Your task to perform on an android device: open app "Move to iOS" (install if not already installed) and enter user name: "Decca@icloud.com" and password: "reabbreviate" Image 0: 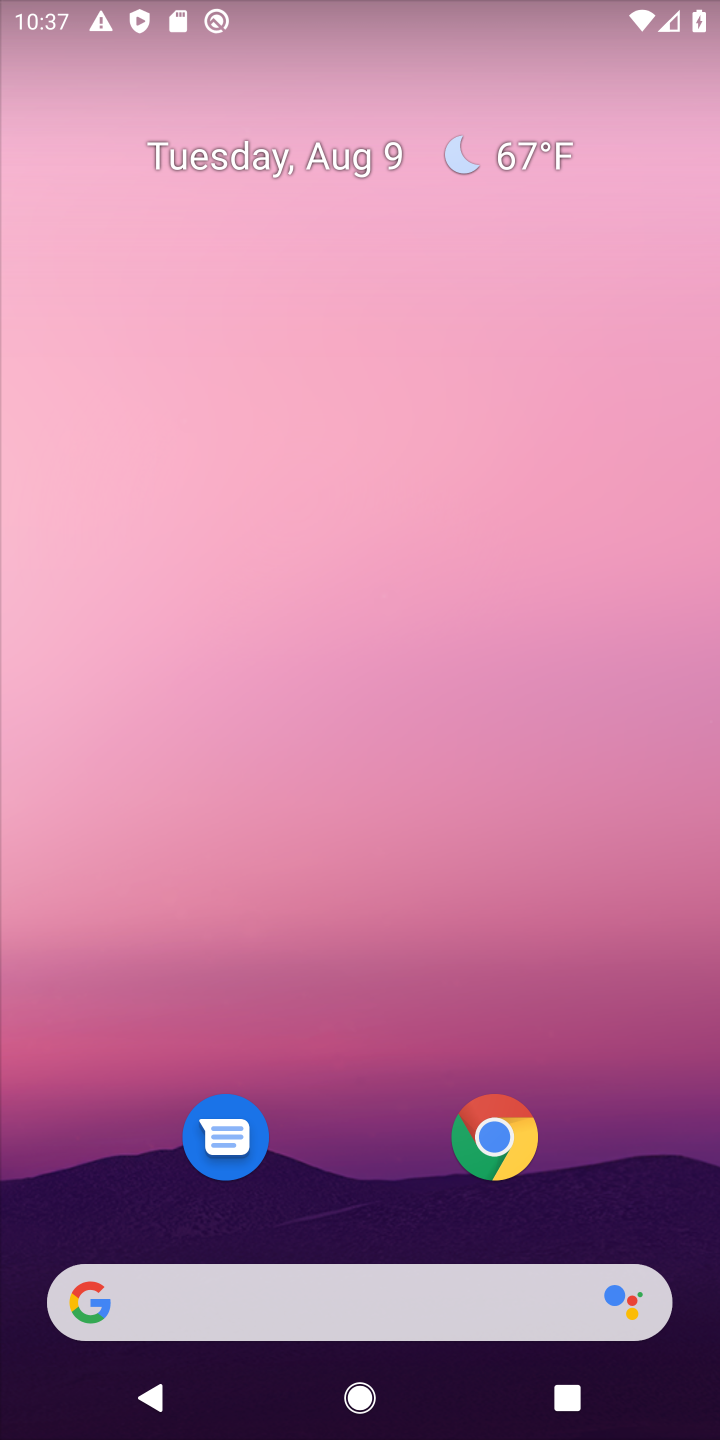
Step 0: drag from (679, 1229) to (453, 83)
Your task to perform on an android device: open app "Move to iOS" (install if not already installed) and enter user name: "Decca@icloud.com" and password: "reabbreviate" Image 1: 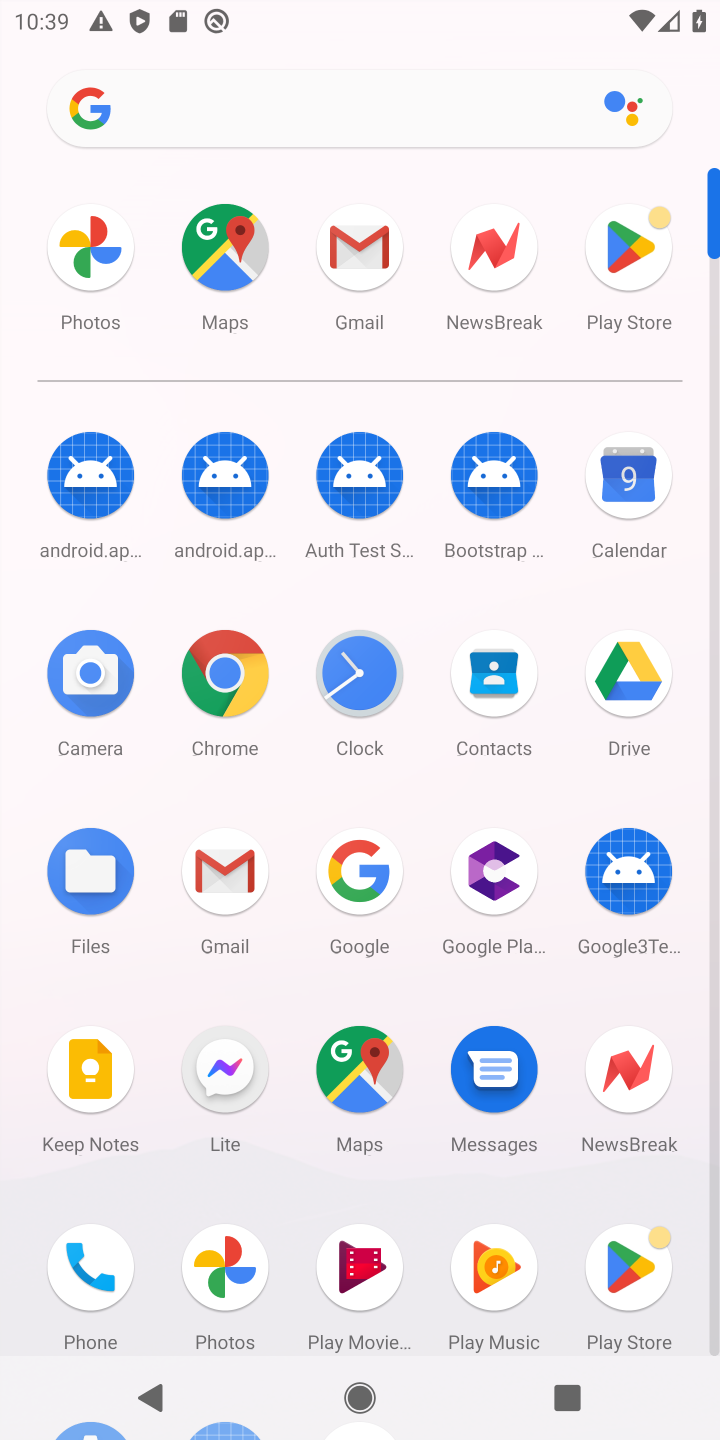
Step 1: click (638, 251)
Your task to perform on an android device: open app "Move to iOS" (install if not already installed) and enter user name: "Decca@icloud.com" and password: "reabbreviate" Image 2: 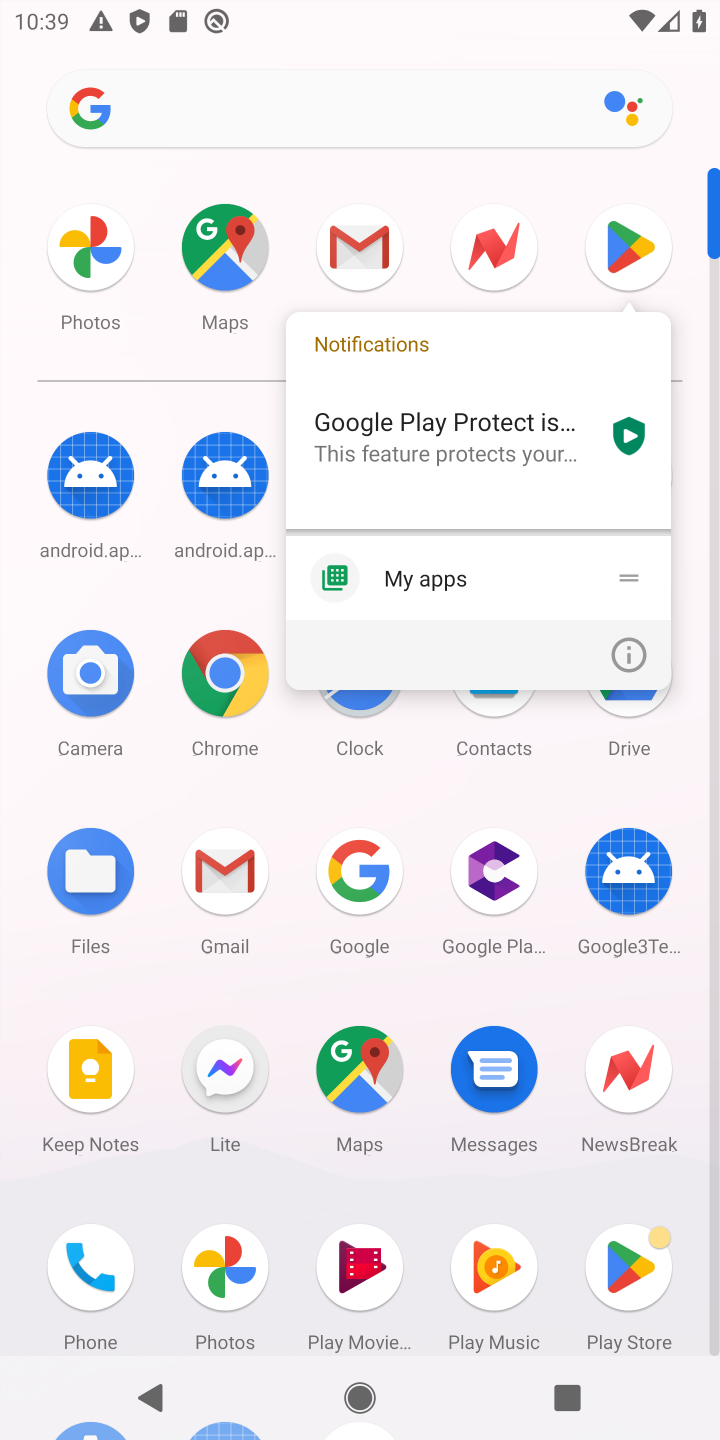
Step 2: click (640, 250)
Your task to perform on an android device: open app "Move to iOS" (install if not already installed) and enter user name: "Decca@icloud.com" and password: "reabbreviate" Image 3: 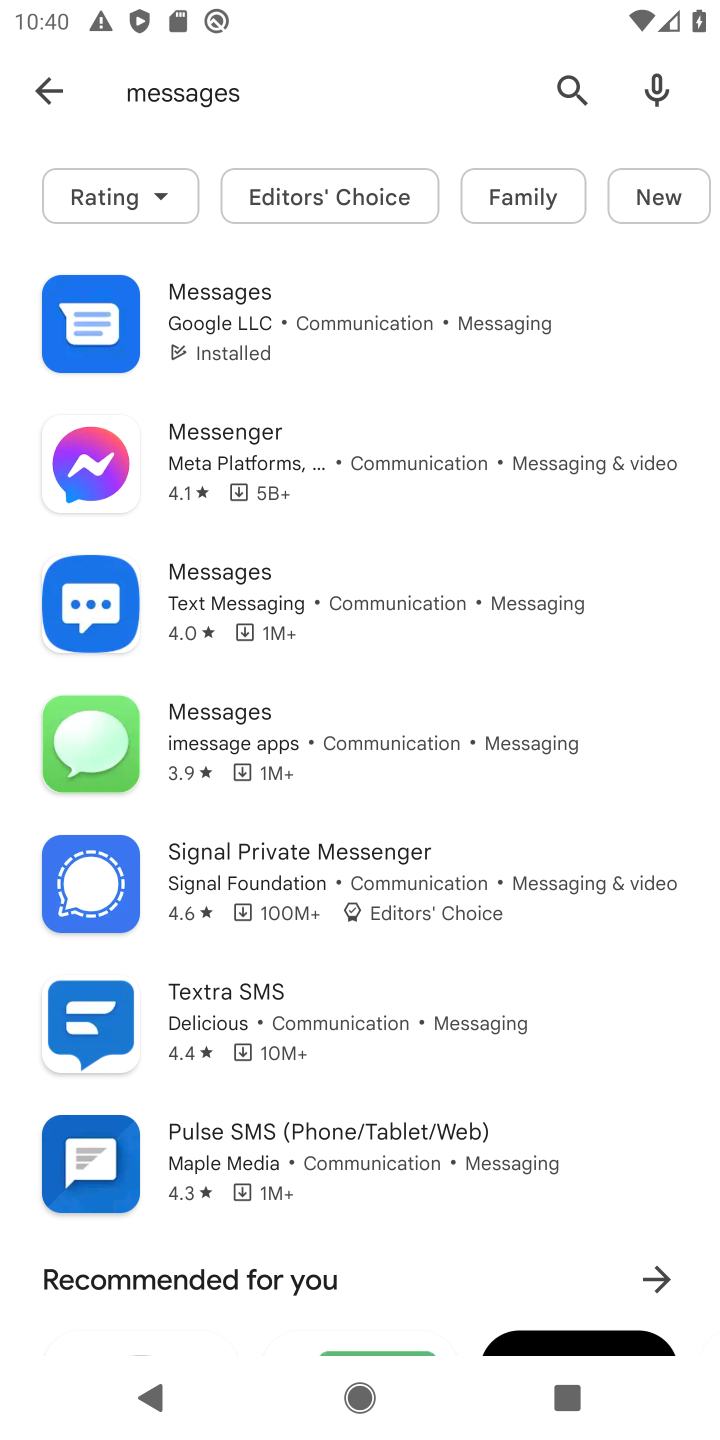
Step 3: press back button
Your task to perform on an android device: open app "Move to iOS" (install if not already installed) and enter user name: "Decca@icloud.com" and password: "reabbreviate" Image 4: 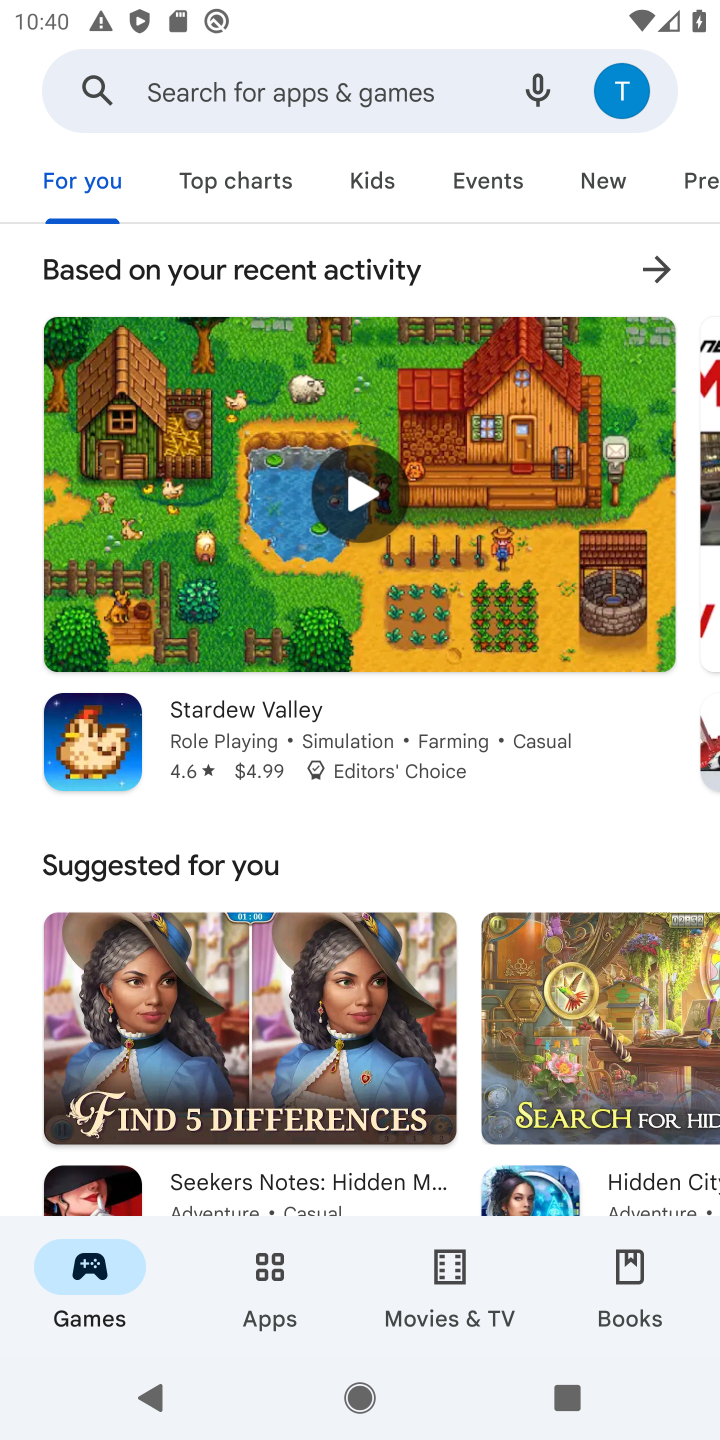
Step 4: click (260, 91)
Your task to perform on an android device: open app "Move to iOS" (install if not already installed) and enter user name: "Decca@icloud.com" and password: "reabbreviate" Image 5: 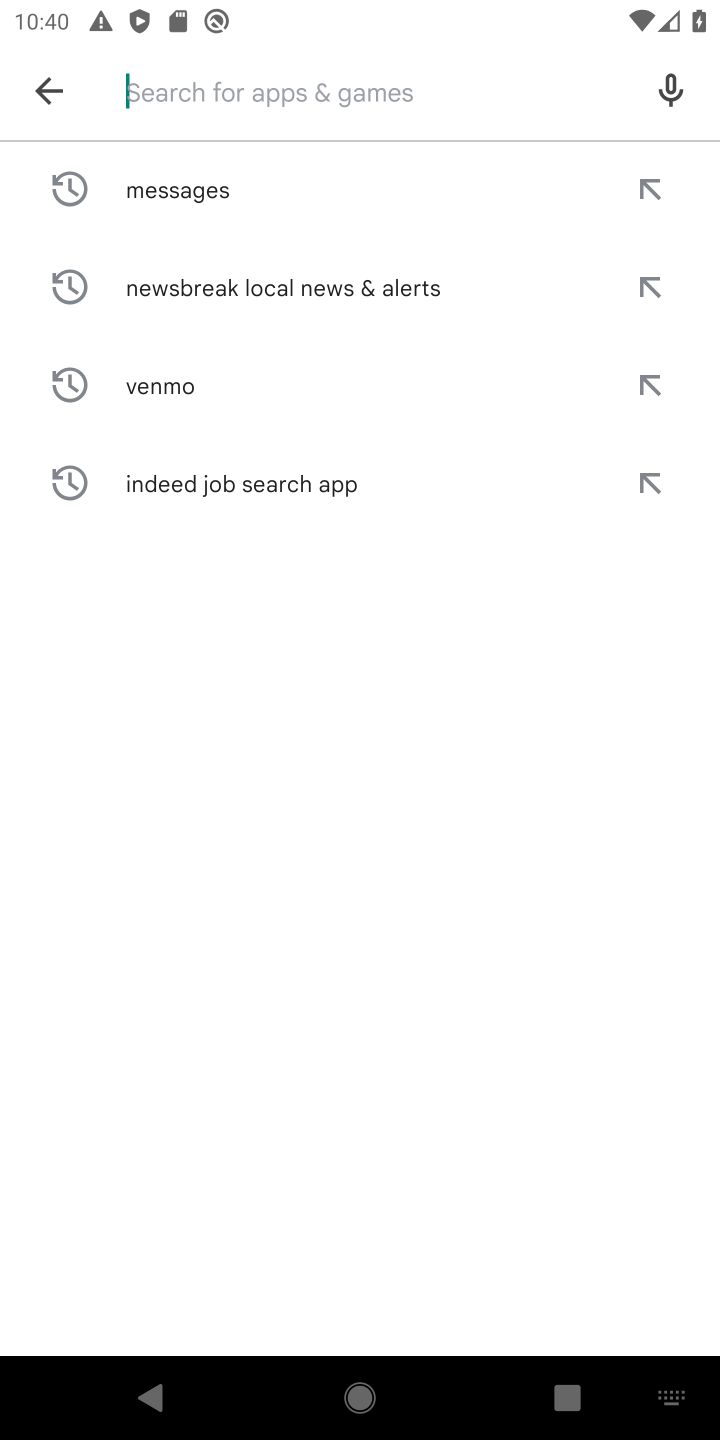
Step 5: type "Move to iOS"
Your task to perform on an android device: open app "Move to iOS" (install if not already installed) and enter user name: "Decca@icloud.com" and password: "reabbreviate" Image 6: 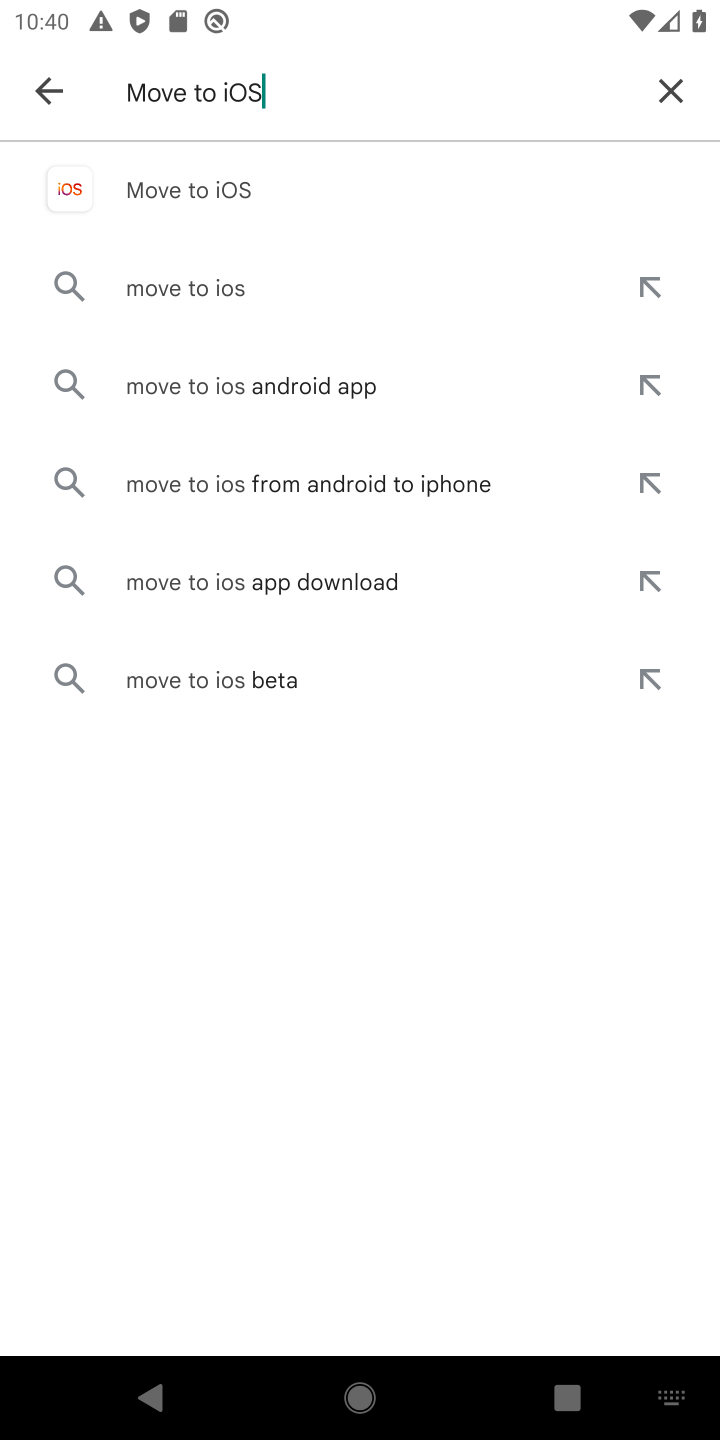
Step 6: click (210, 175)
Your task to perform on an android device: open app "Move to iOS" (install if not already installed) and enter user name: "Decca@icloud.com" and password: "reabbreviate" Image 7: 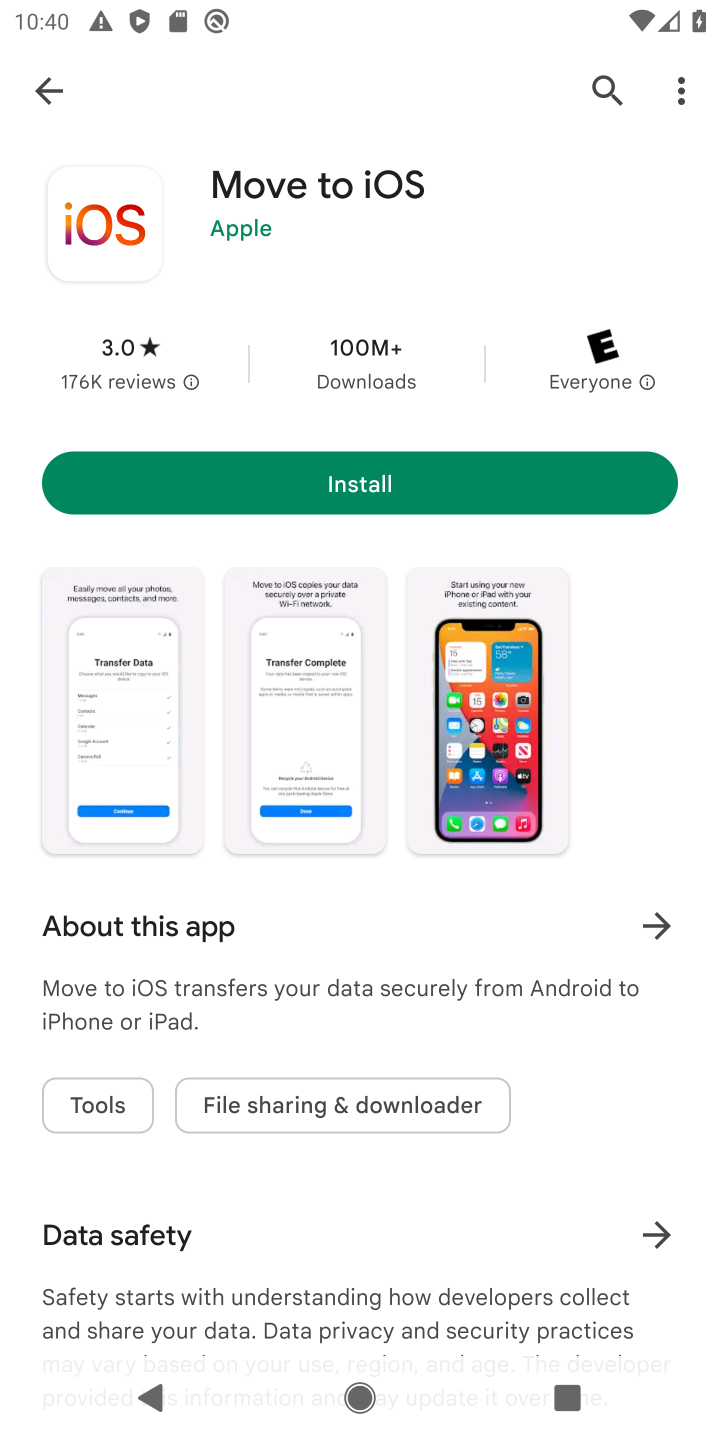
Step 7: task complete